Your task to perform on an android device: Go to sound settings Image 0: 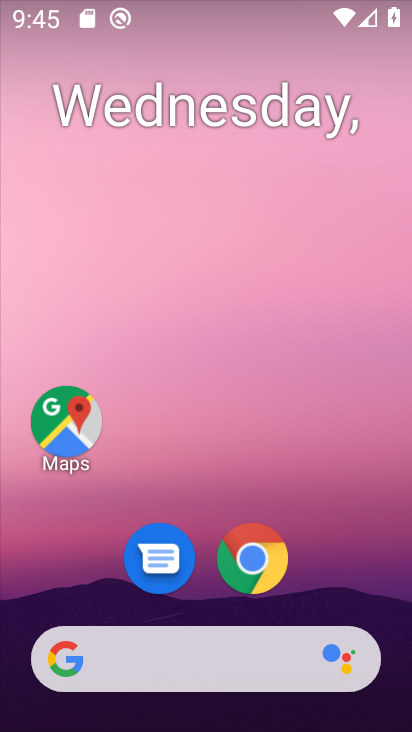
Step 0: drag from (376, 550) to (389, 115)
Your task to perform on an android device: Go to sound settings Image 1: 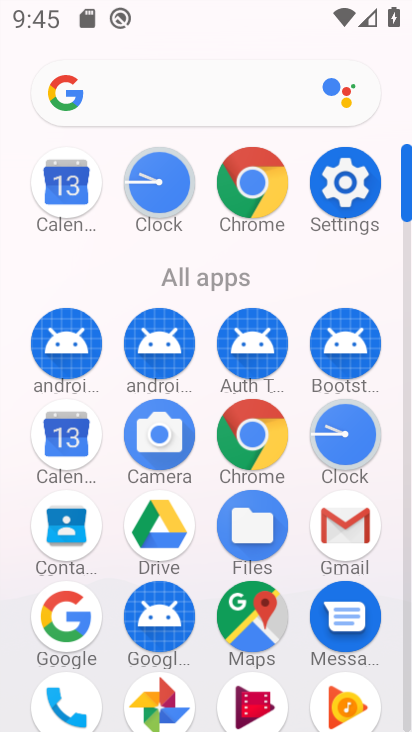
Step 1: click (354, 200)
Your task to perform on an android device: Go to sound settings Image 2: 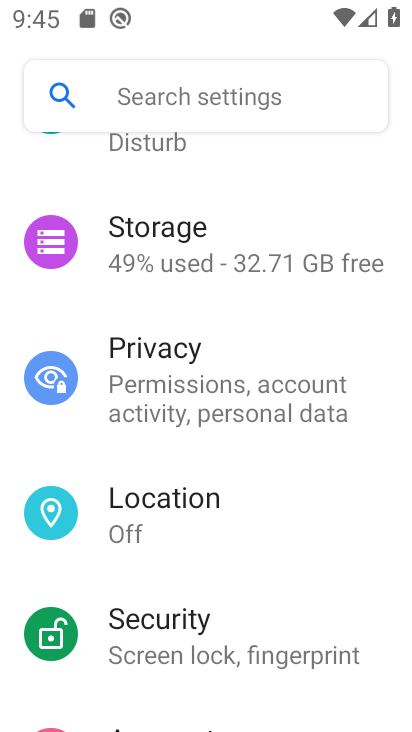
Step 2: drag from (375, 343) to (375, 435)
Your task to perform on an android device: Go to sound settings Image 3: 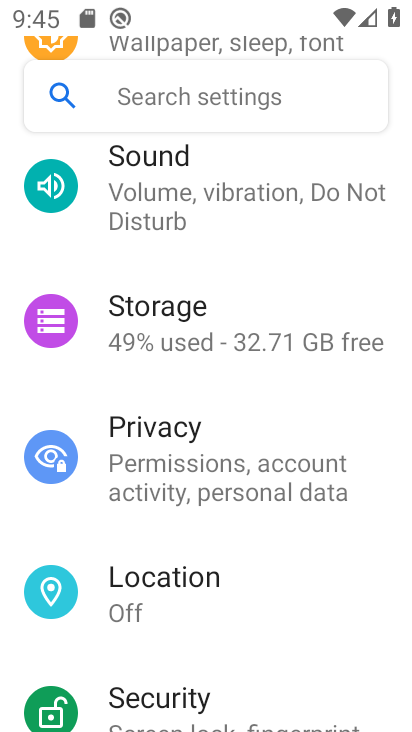
Step 3: drag from (377, 322) to (363, 442)
Your task to perform on an android device: Go to sound settings Image 4: 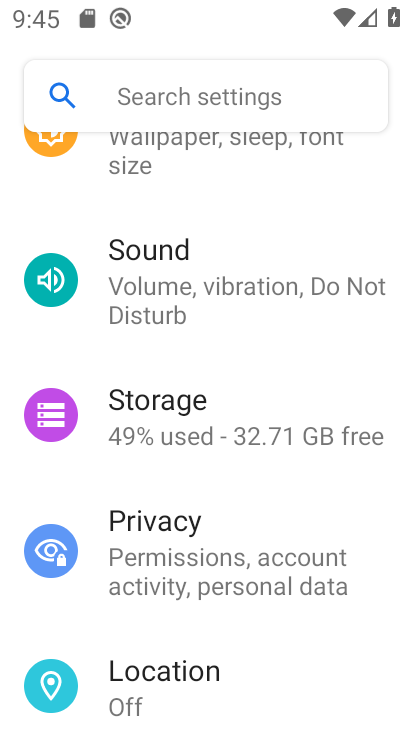
Step 4: drag from (351, 373) to (348, 513)
Your task to perform on an android device: Go to sound settings Image 5: 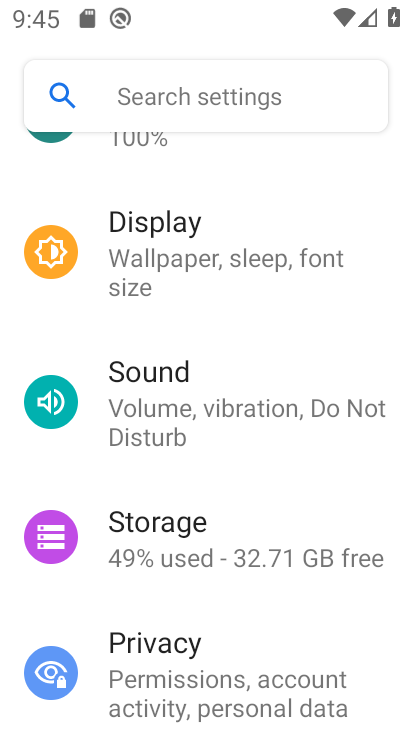
Step 5: drag from (347, 336) to (341, 453)
Your task to perform on an android device: Go to sound settings Image 6: 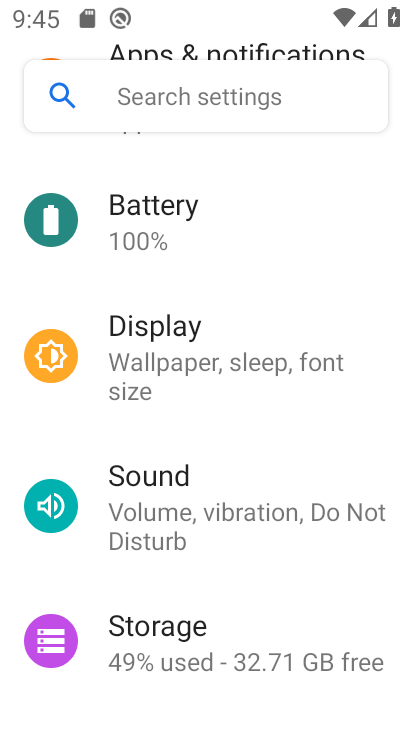
Step 6: drag from (368, 320) to (371, 424)
Your task to perform on an android device: Go to sound settings Image 7: 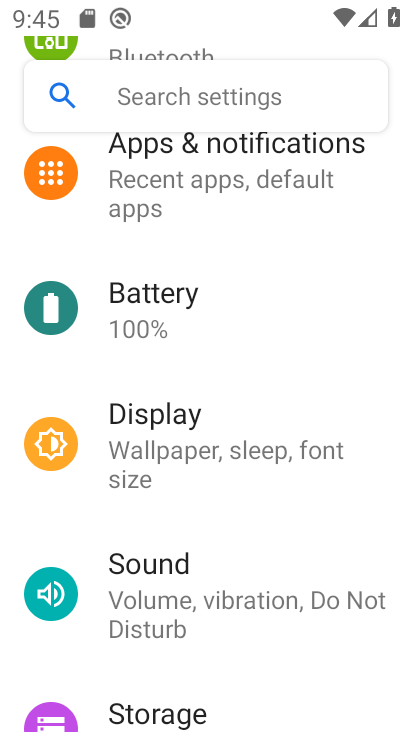
Step 7: click (340, 570)
Your task to perform on an android device: Go to sound settings Image 8: 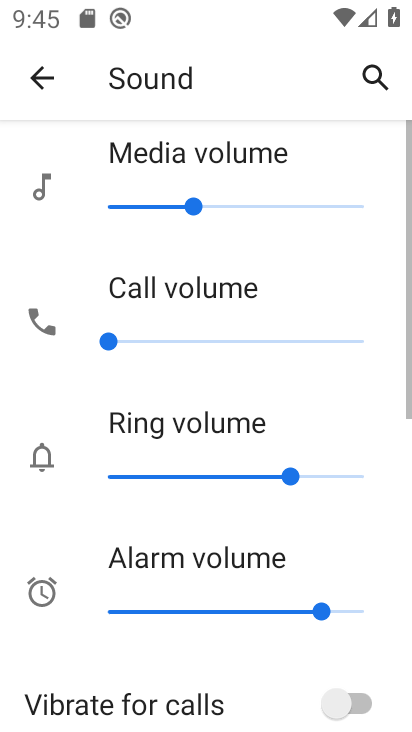
Step 8: task complete